Your task to perform on an android device: Go to Google maps Image 0: 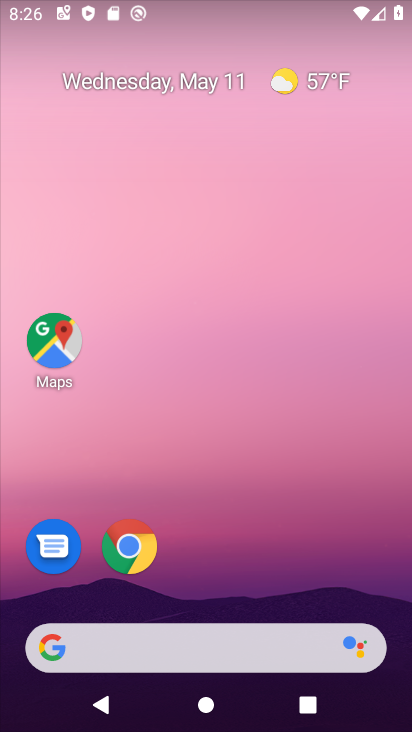
Step 0: click (47, 340)
Your task to perform on an android device: Go to Google maps Image 1: 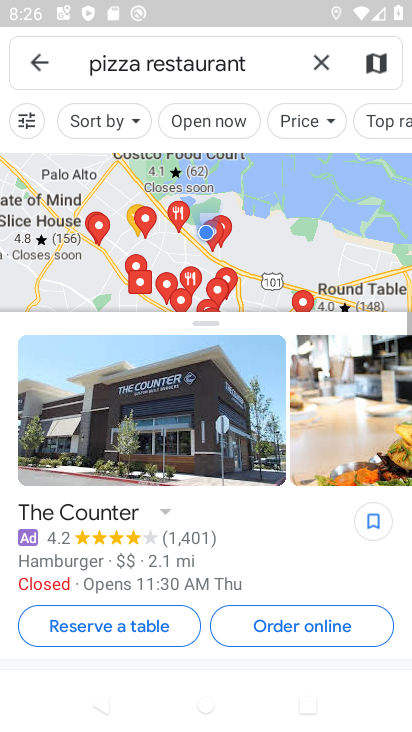
Step 1: task complete